Your task to perform on an android device: check android version Image 0: 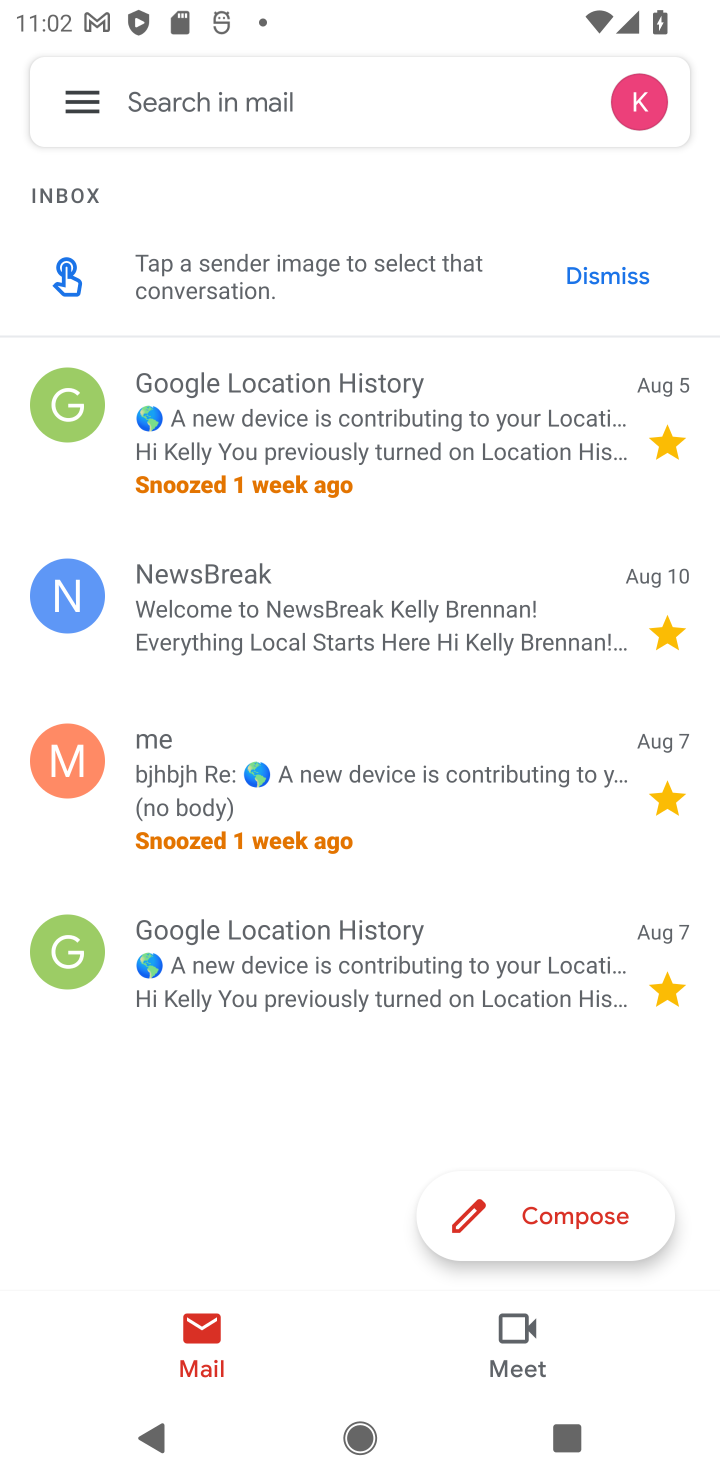
Step 0: press home button
Your task to perform on an android device: check android version Image 1: 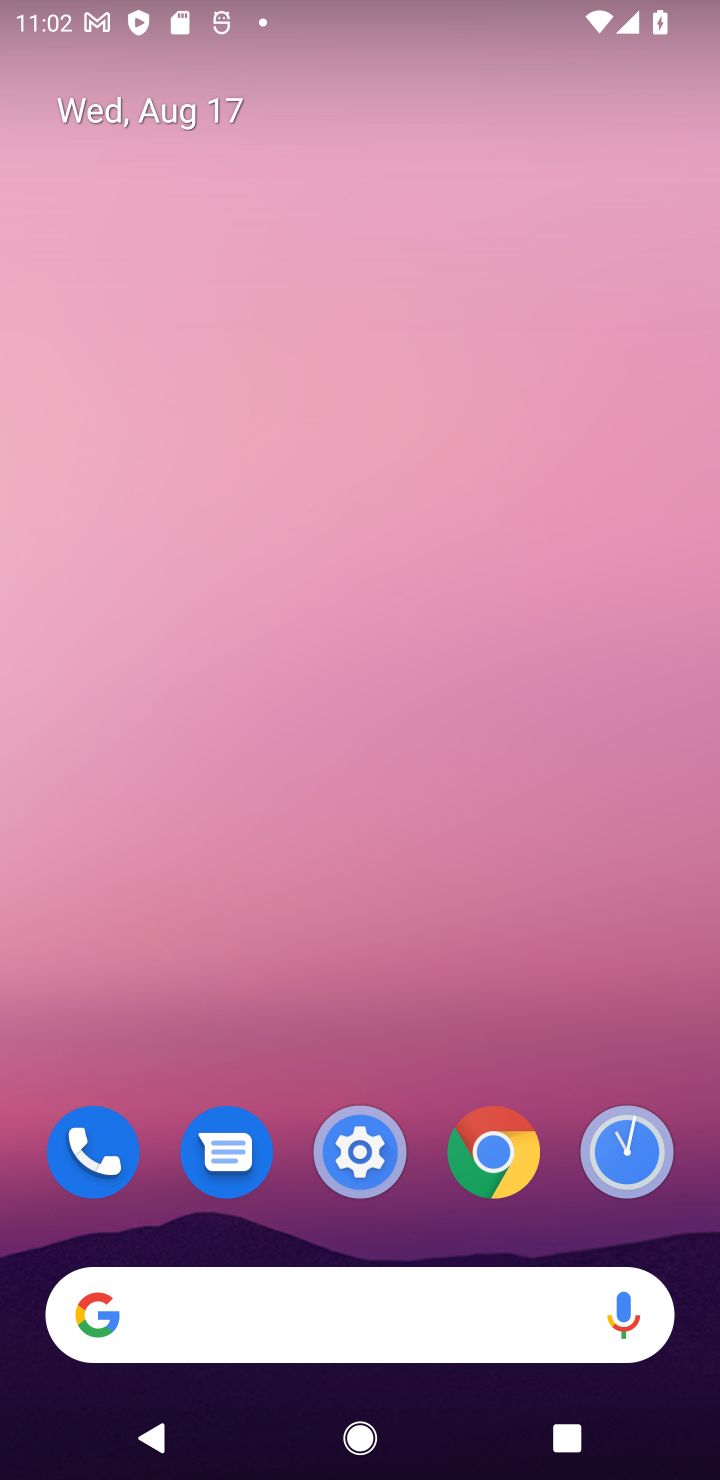
Step 1: drag from (684, 1229) to (509, 44)
Your task to perform on an android device: check android version Image 2: 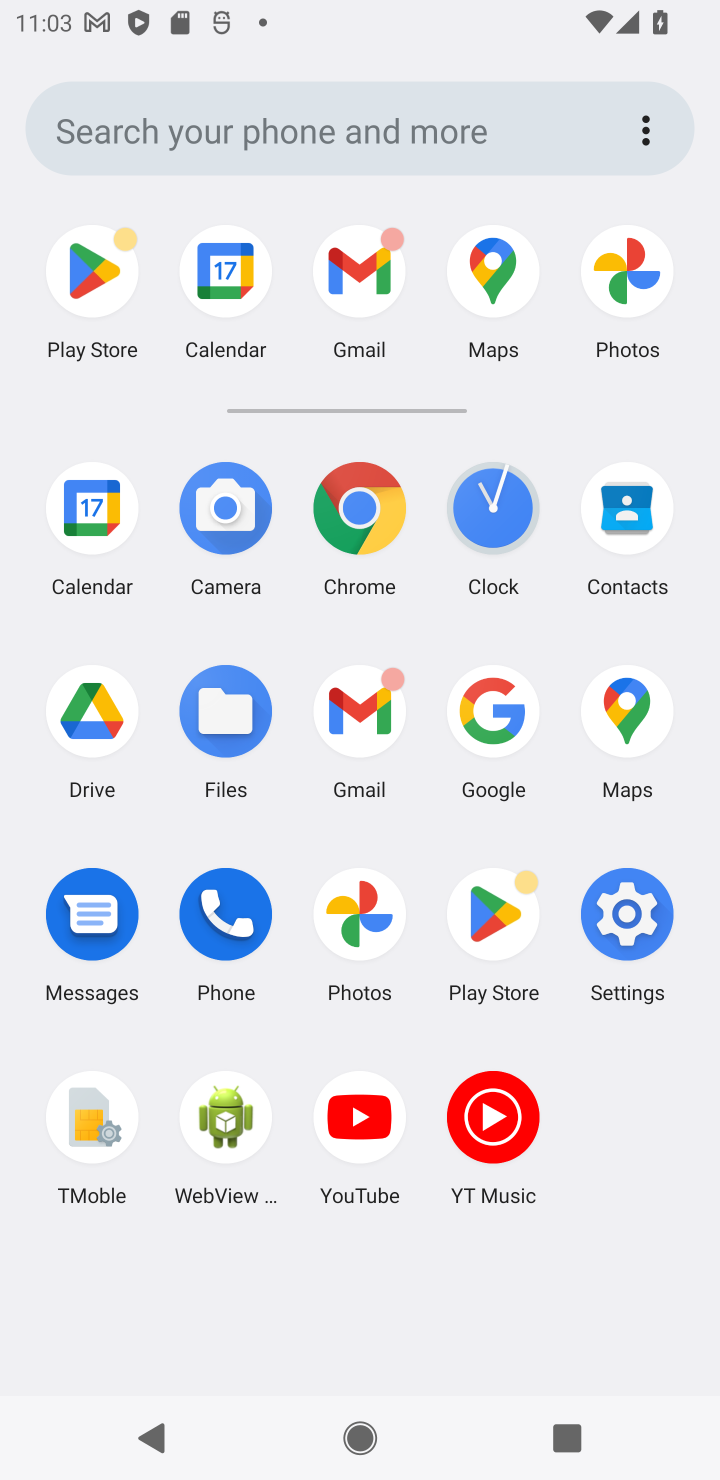
Step 2: click (617, 934)
Your task to perform on an android device: check android version Image 3: 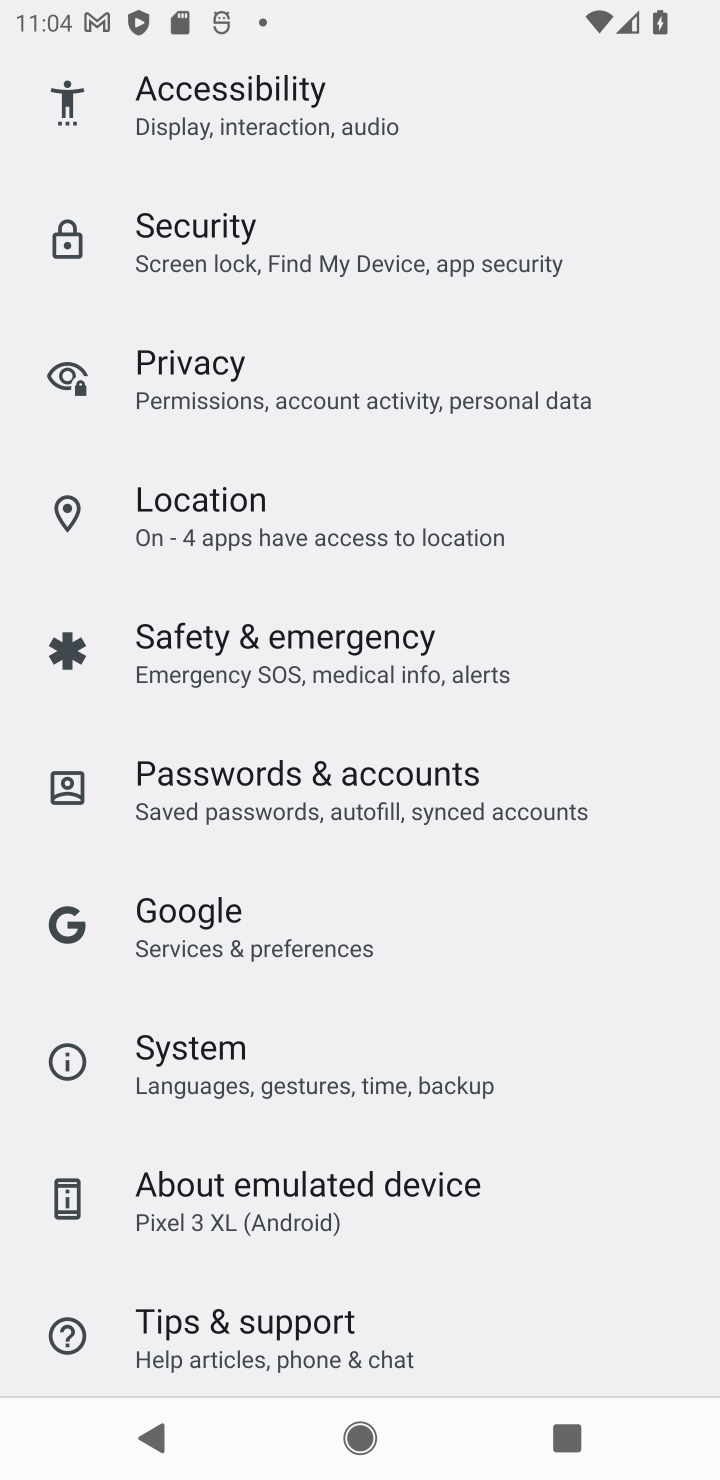
Step 3: drag from (252, 1339) to (340, 2)
Your task to perform on an android device: check android version Image 4: 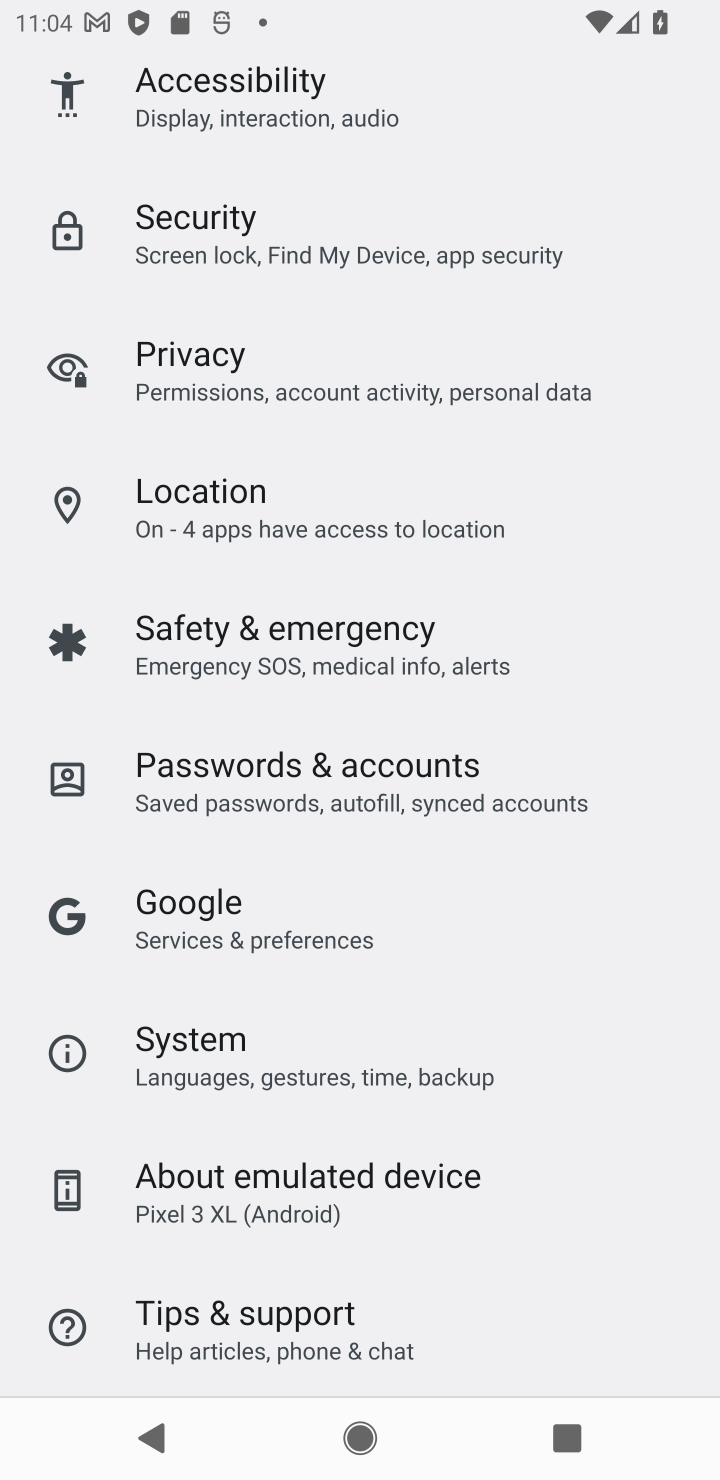
Step 4: drag from (246, 1361) to (282, 12)
Your task to perform on an android device: check android version Image 5: 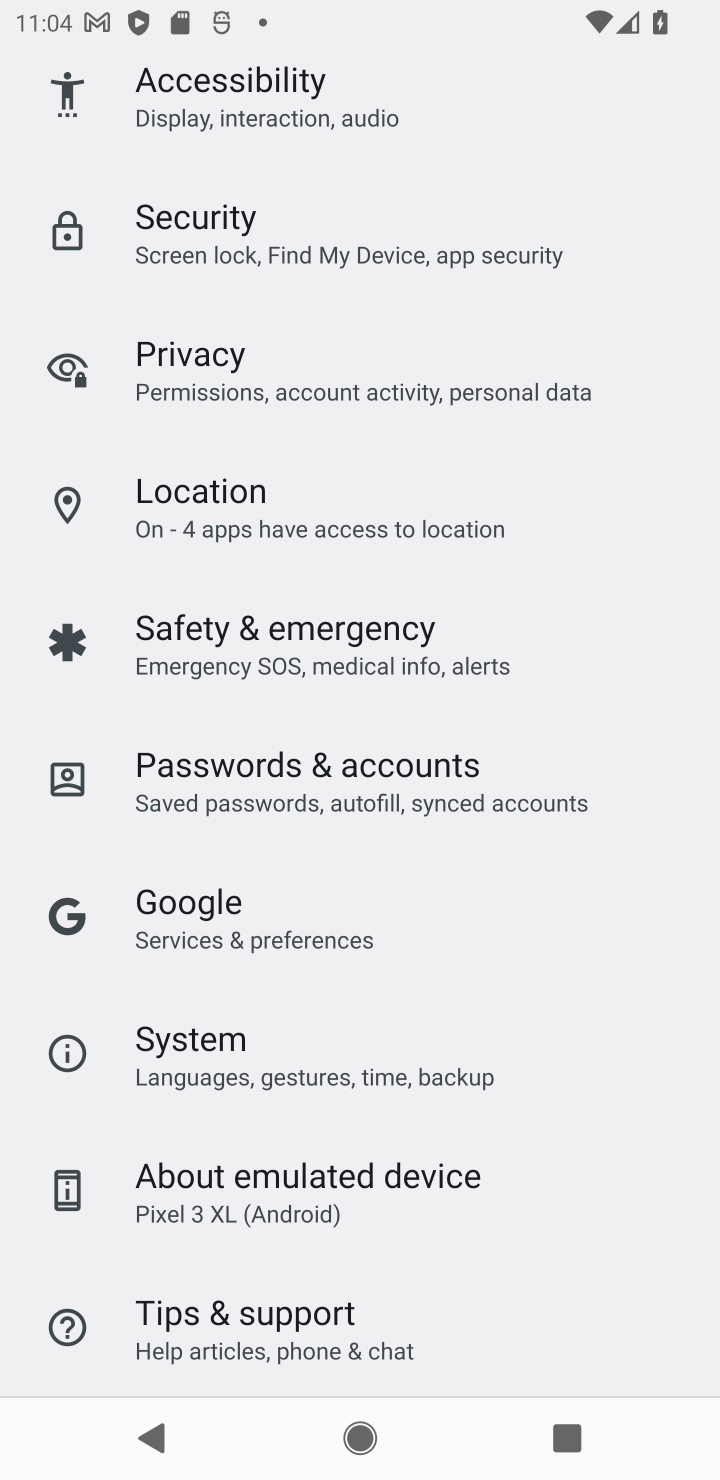
Step 5: click (322, 1229)
Your task to perform on an android device: check android version Image 6: 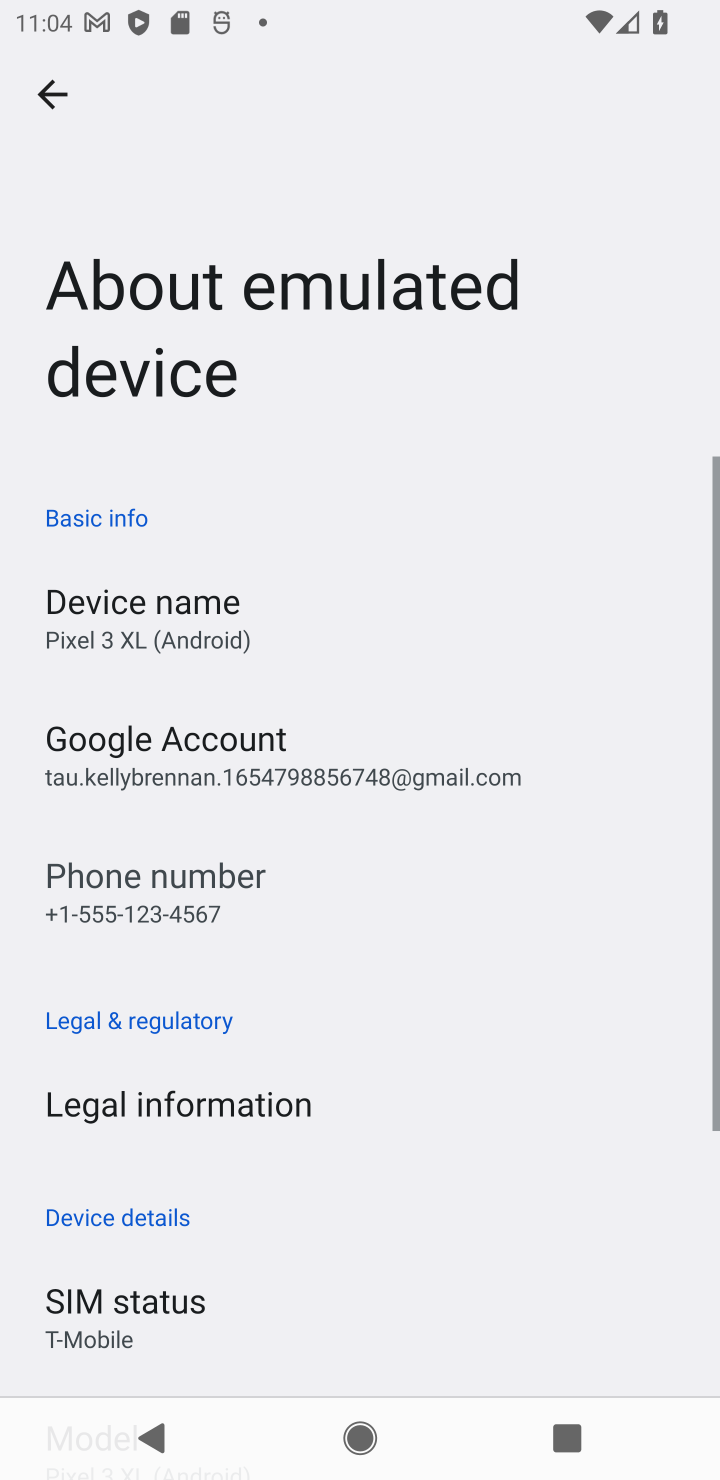
Step 6: drag from (187, 1312) to (456, 191)
Your task to perform on an android device: check android version Image 7: 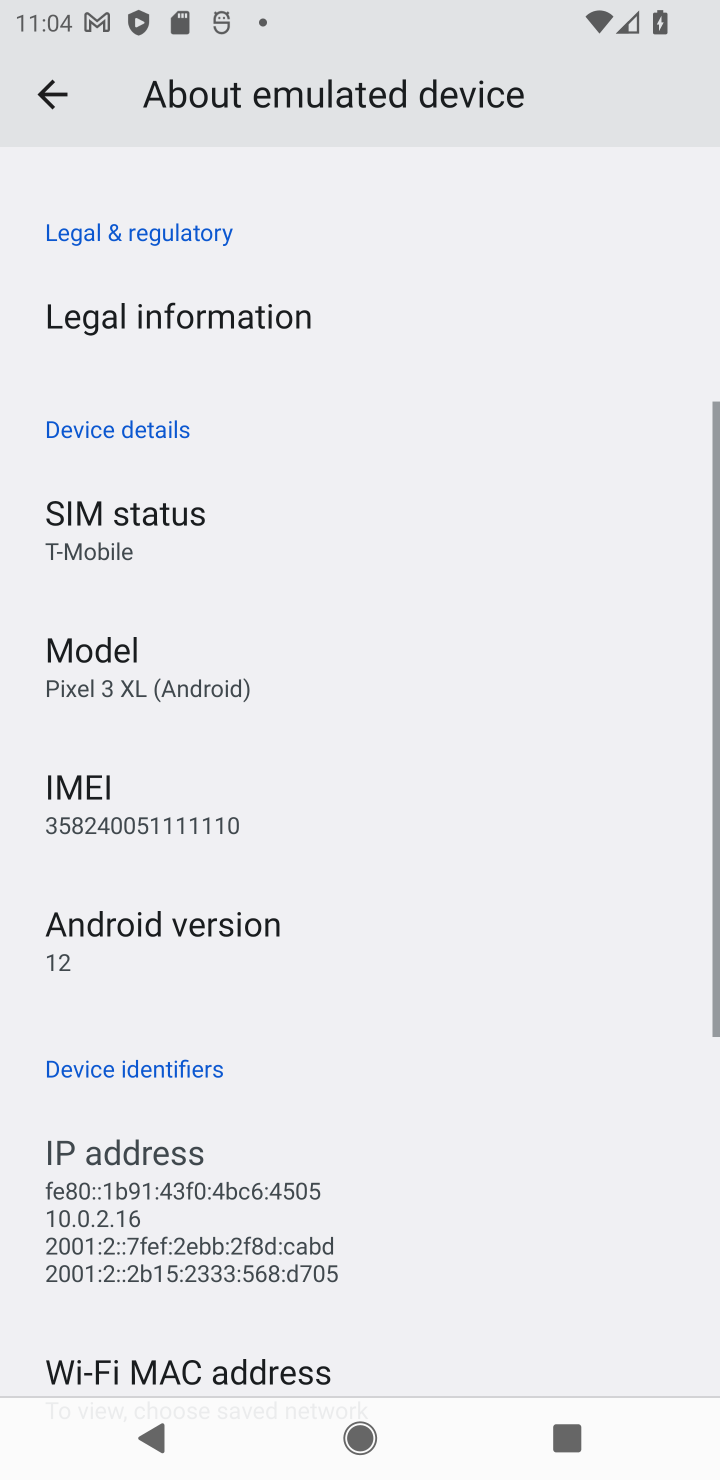
Step 7: click (238, 947)
Your task to perform on an android device: check android version Image 8: 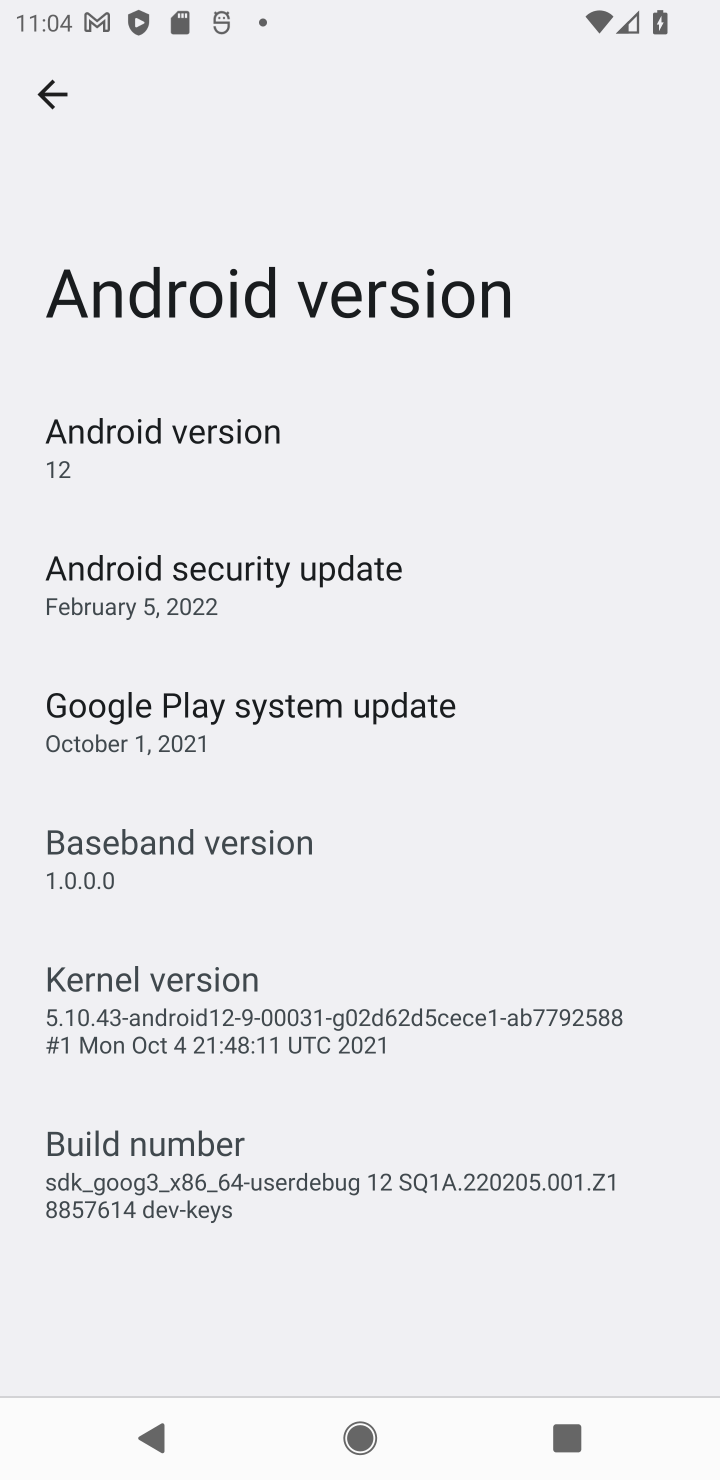
Step 8: task complete